Your task to perform on an android device: make emails show in primary in the gmail app Image 0: 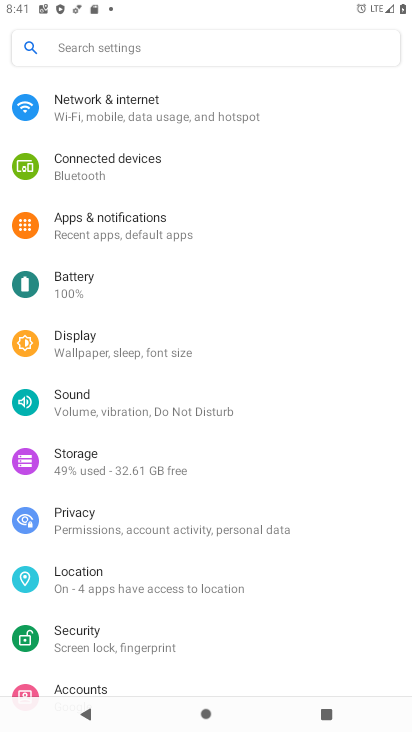
Step 0: drag from (359, 612) to (392, 349)
Your task to perform on an android device: make emails show in primary in the gmail app Image 1: 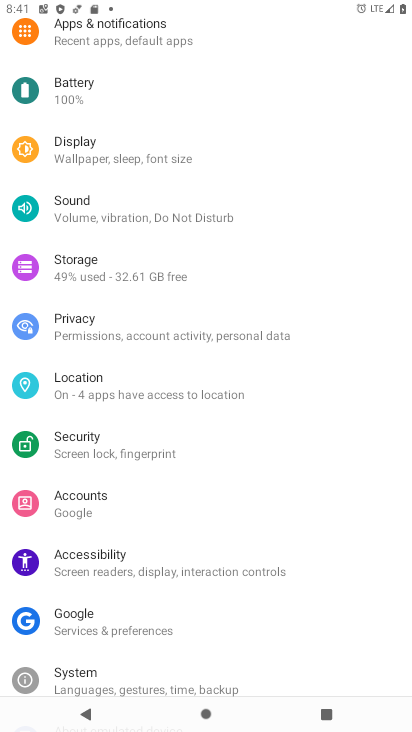
Step 1: press home button
Your task to perform on an android device: make emails show in primary in the gmail app Image 2: 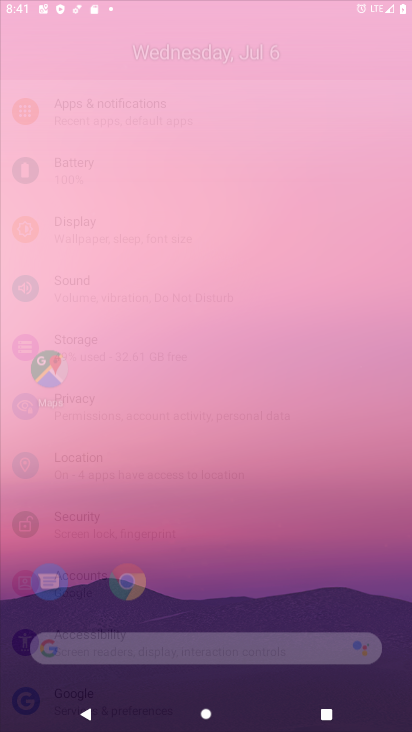
Step 2: drag from (394, 702) to (345, 137)
Your task to perform on an android device: make emails show in primary in the gmail app Image 3: 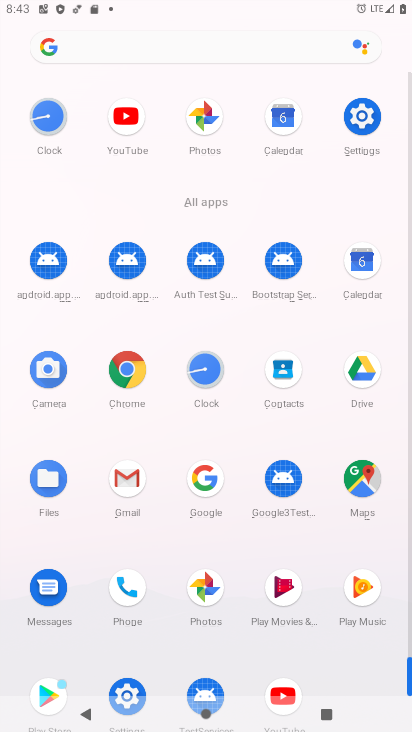
Step 3: click (120, 485)
Your task to perform on an android device: make emails show in primary in the gmail app Image 4: 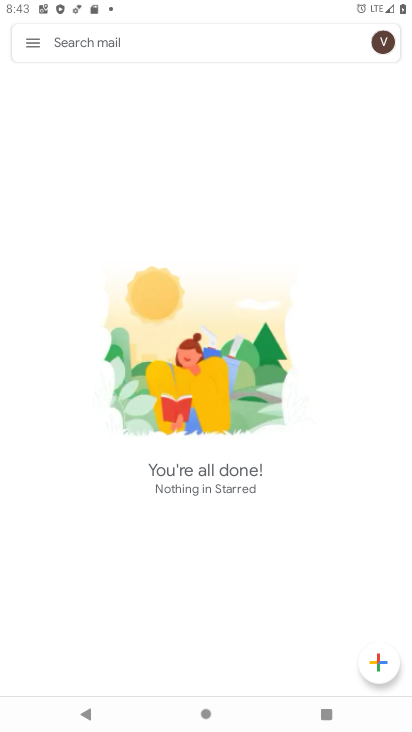
Step 4: task complete